Your task to perform on an android device: Go to location settings Image 0: 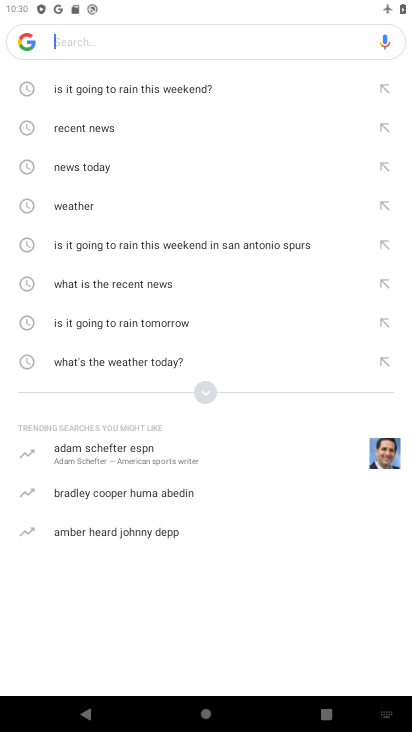
Step 0: press home button
Your task to perform on an android device: Go to location settings Image 1: 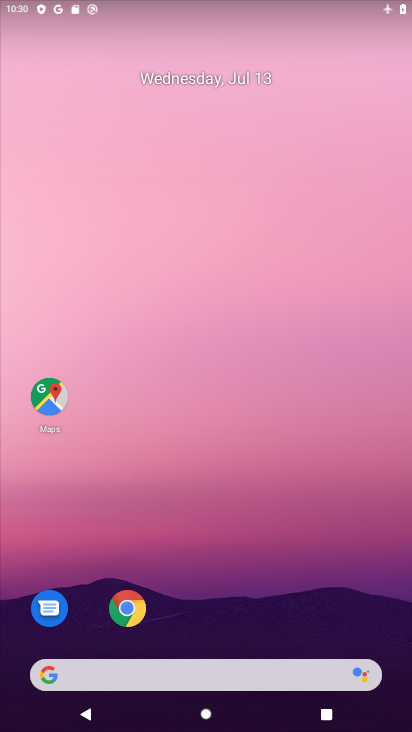
Step 1: drag from (286, 612) to (205, 125)
Your task to perform on an android device: Go to location settings Image 2: 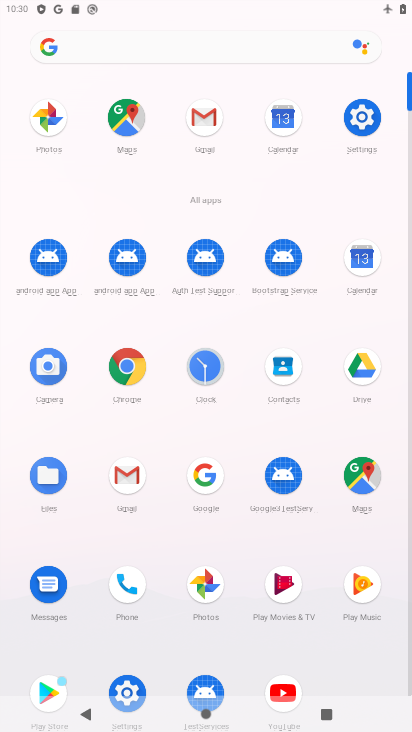
Step 2: click (370, 119)
Your task to perform on an android device: Go to location settings Image 3: 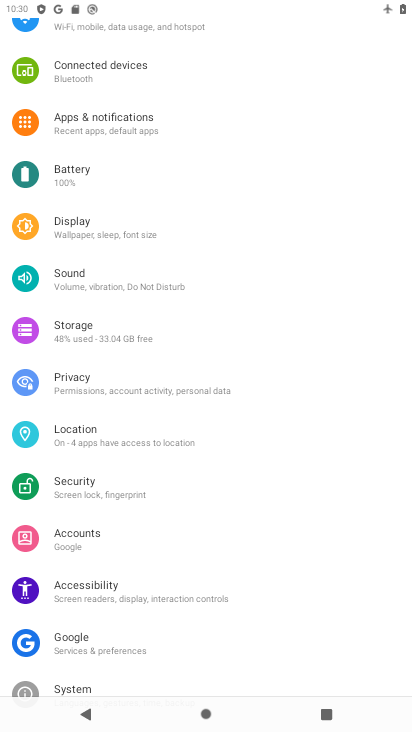
Step 3: click (130, 429)
Your task to perform on an android device: Go to location settings Image 4: 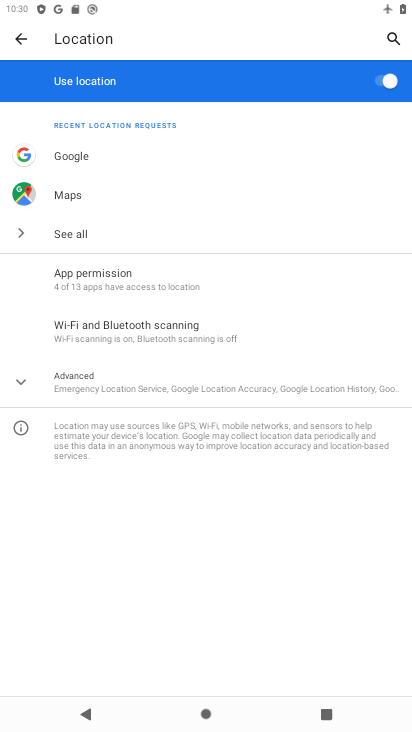
Step 4: task complete